Your task to perform on an android device: Show me popular videos on Youtube Image 0: 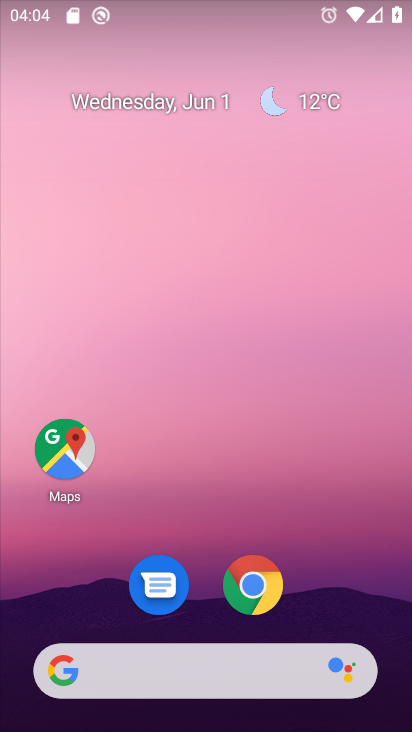
Step 0: drag from (302, 577) to (295, 23)
Your task to perform on an android device: Show me popular videos on Youtube Image 1: 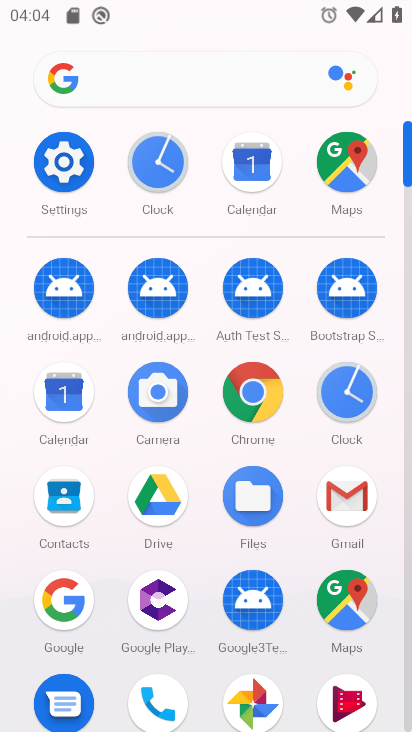
Step 1: drag from (294, 522) to (306, 39)
Your task to perform on an android device: Show me popular videos on Youtube Image 2: 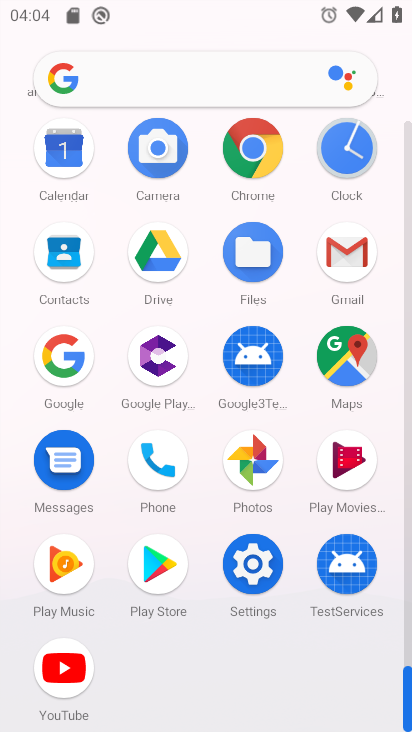
Step 2: click (65, 657)
Your task to perform on an android device: Show me popular videos on Youtube Image 3: 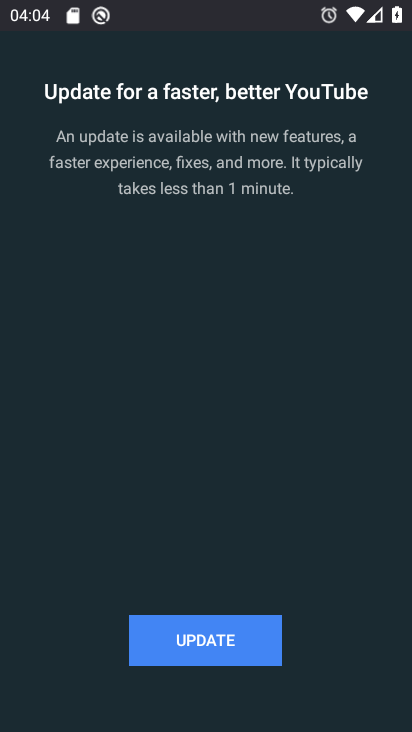
Step 3: click (161, 631)
Your task to perform on an android device: Show me popular videos on Youtube Image 4: 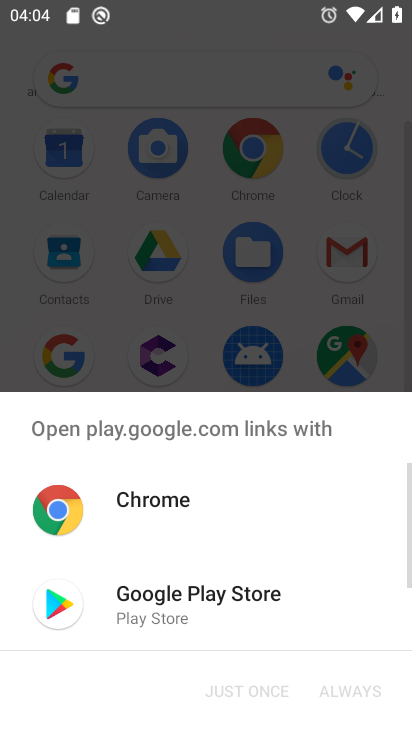
Step 4: click (148, 618)
Your task to perform on an android device: Show me popular videos on Youtube Image 5: 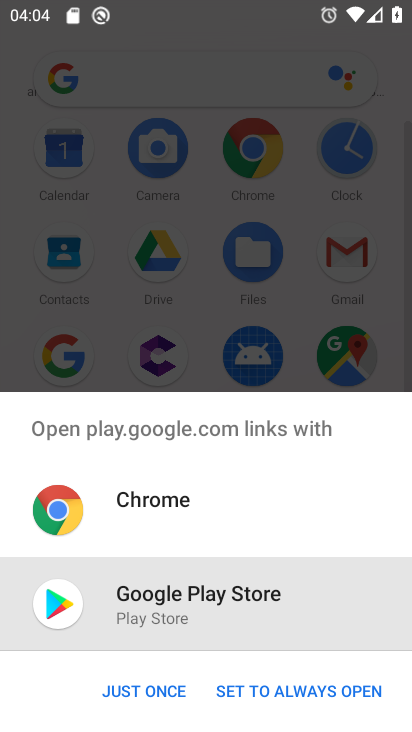
Step 5: click (153, 696)
Your task to perform on an android device: Show me popular videos on Youtube Image 6: 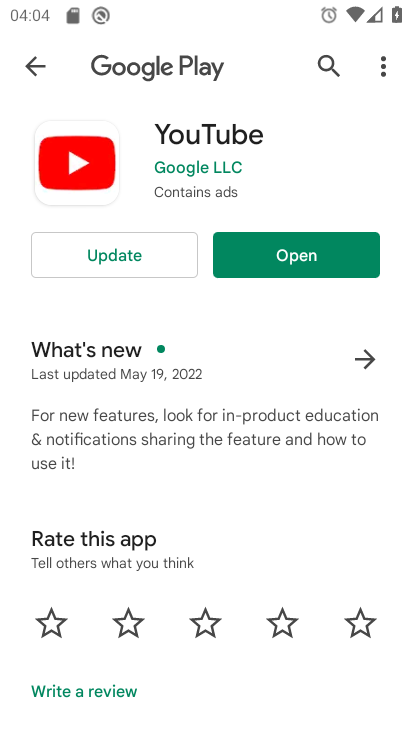
Step 6: click (116, 253)
Your task to perform on an android device: Show me popular videos on Youtube Image 7: 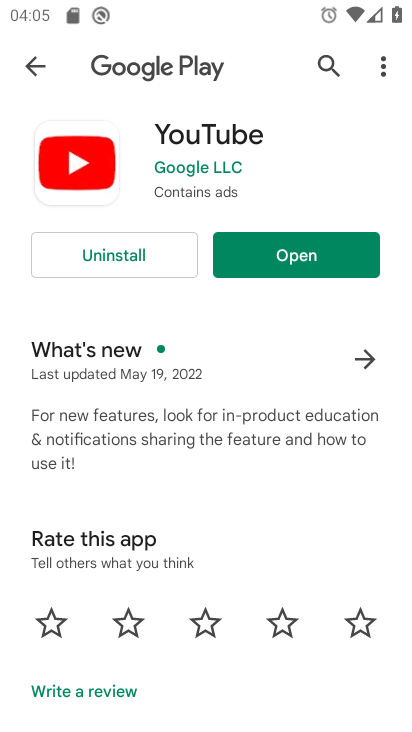
Step 7: click (243, 251)
Your task to perform on an android device: Show me popular videos on Youtube Image 8: 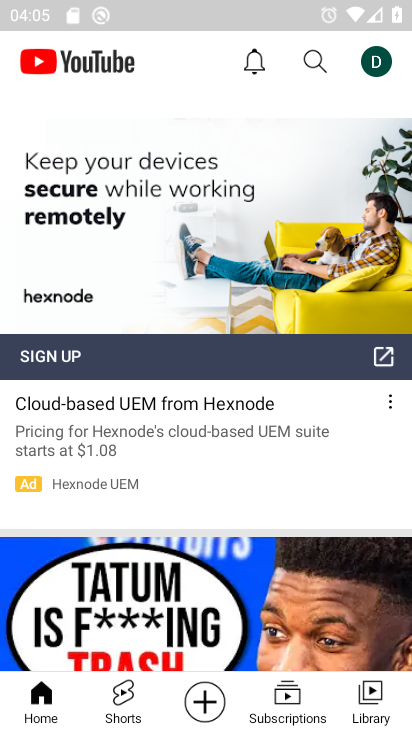
Step 8: click (311, 58)
Your task to perform on an android device: Show me popular videos on Youtube Image 9: 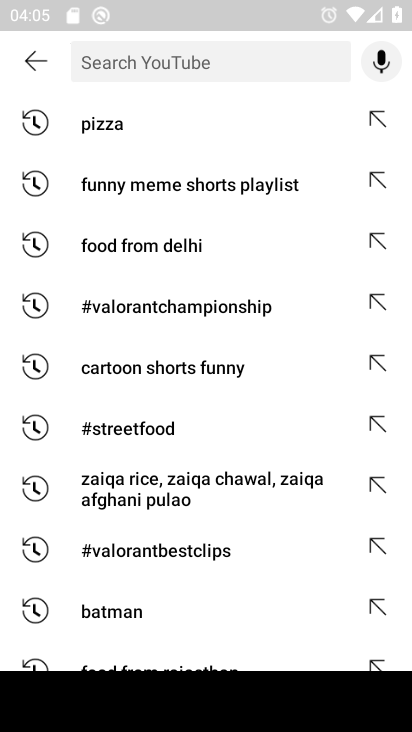
Step 9: type "populor videos"
Your task to perform on an android device: Show me popular videos on Youtube Image 10: 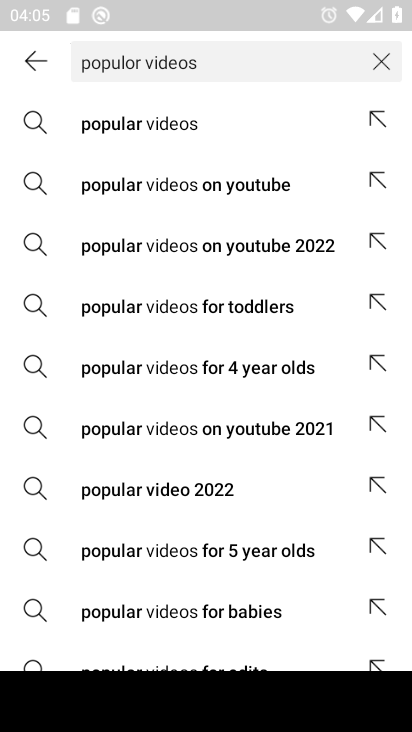
Step 10: click (219, 195)
Your task to perform on an android device: Show me popular videos on Youtube Image 11: 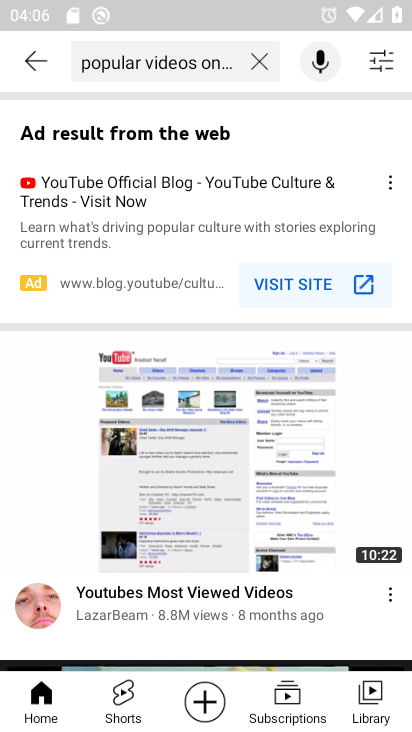
Step 11: task complete